Your task to perform on an android device: check android version Image 0: 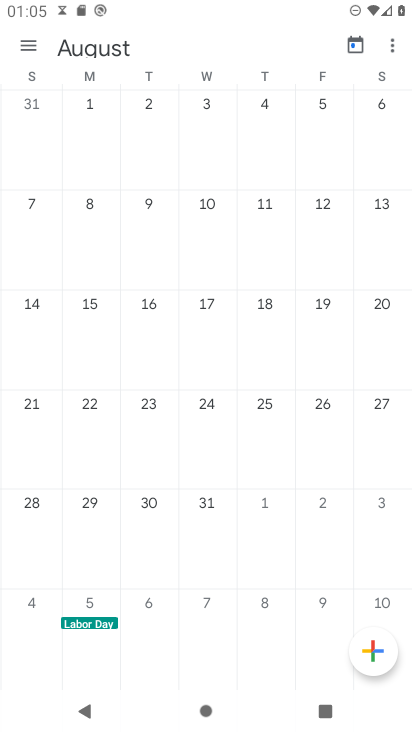
Step 0: press home button
Your task to perform on an android device: check android version Image 1: 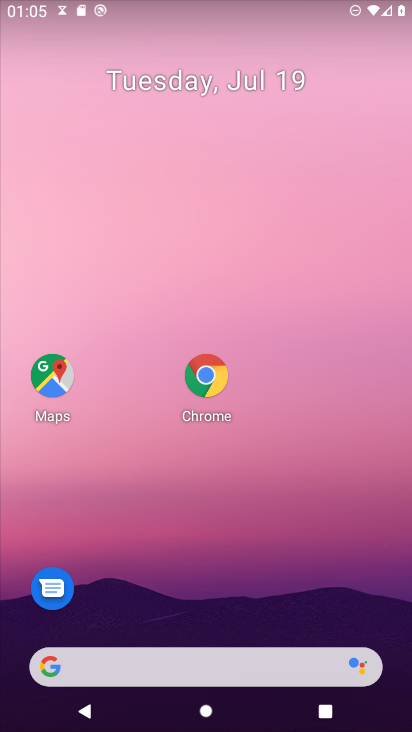
Step 1: press home button
Your task to perform on an android device: check android version Image 2: 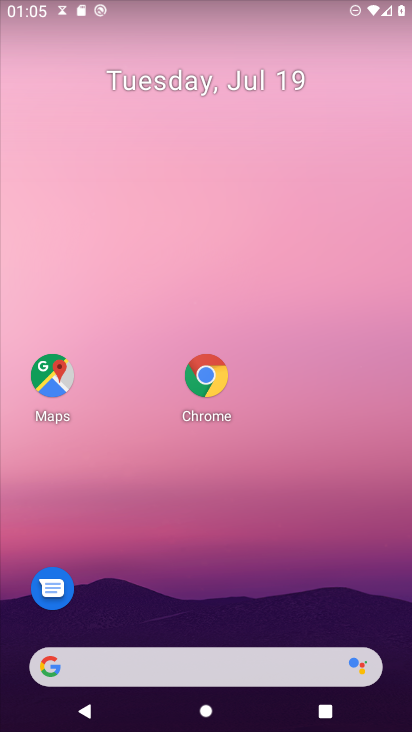
Step 2: drag from (326, 524) to (316, 104)
Your task to perform on an android device: check android version Image 3: 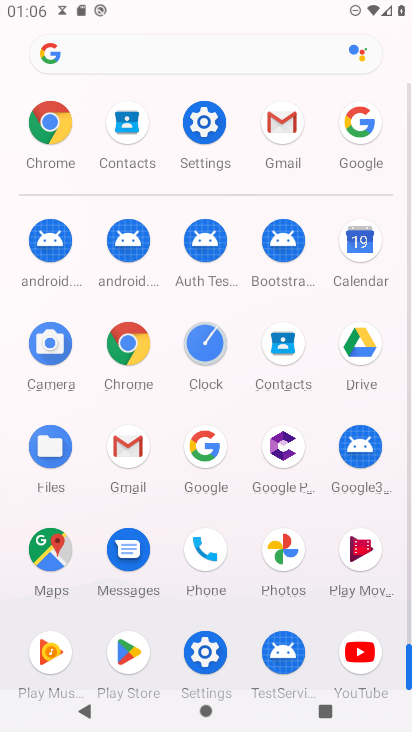
Step 3: click (217, 123)
Your task to perform on an android device: check android version Image 4: 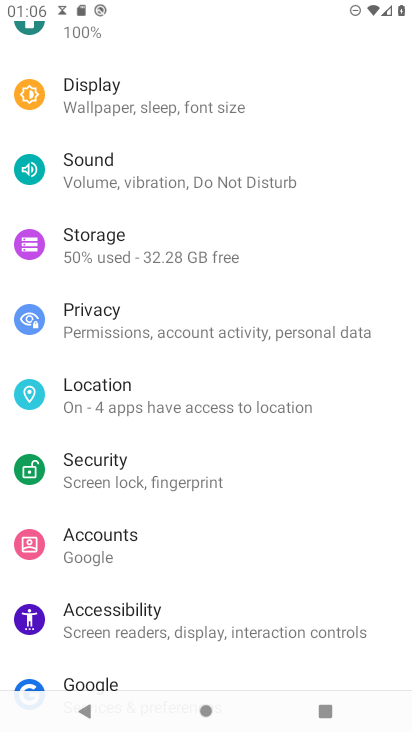
Step 4: drag from (197, 588) to (225, 8)
Your task to perform on an android device: check android version Image 5: 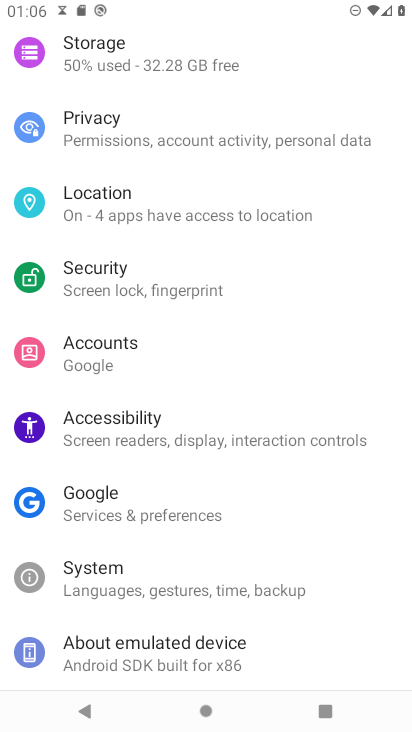
Step 5: click (122, 655)
Your task to perform on an android device: check android version Image 6: 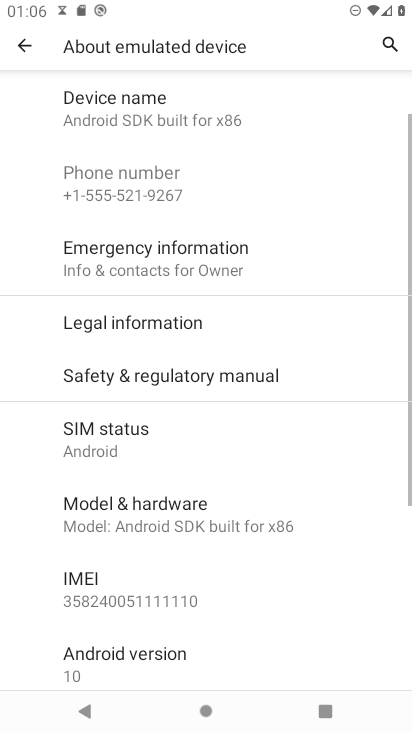
Step 6: click (131, 668)
Your task to perform on an android device: check android version Image 7: 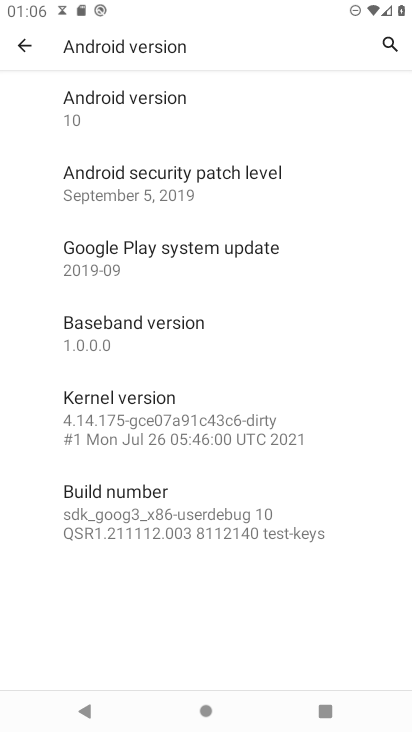
Step 7: task complete